Your task to perform on an android device: open a new tab in the chrome app Image 0: 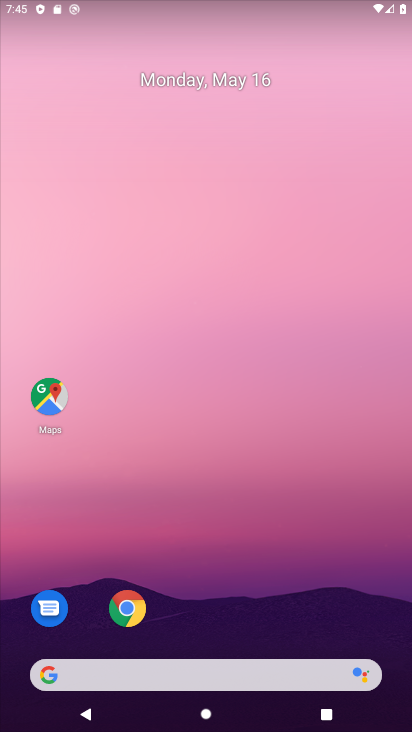
Step 0: click (123, 612)
Your task to perform on an android device: open a new tab in the chrome app Image 1: 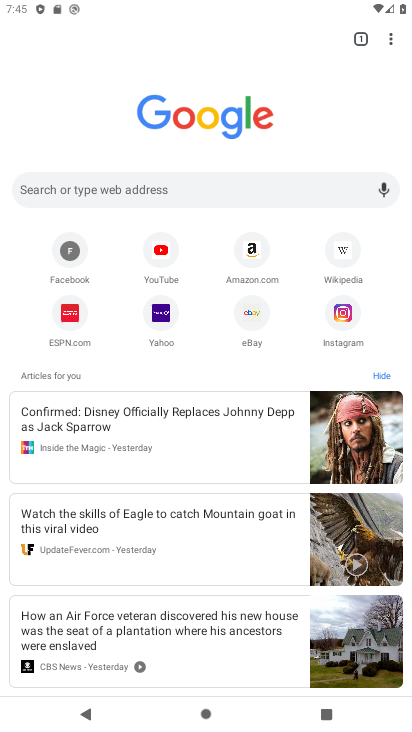
Step 1: click (362, 42)
Your task to perform on an android device: open a new tab in the chrome app Image 2: 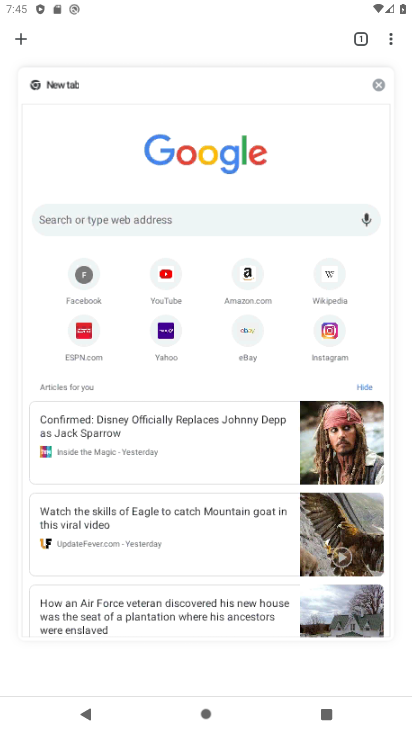
Step 2: click (23, 38)
Your task to perform on an android device: open a new tab in the chrome app Image 3: 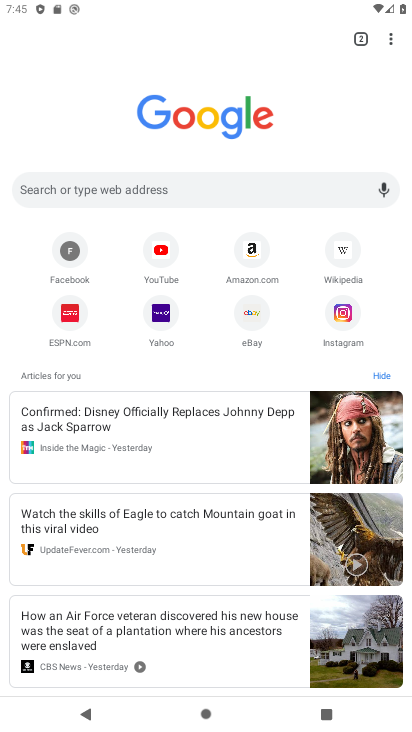
Step 3: task complete